Your task to perform on an android device: Search for "razer blackwidow" on amazon.com, select the first entry, add it to the cart, then select checkout. Image 0: 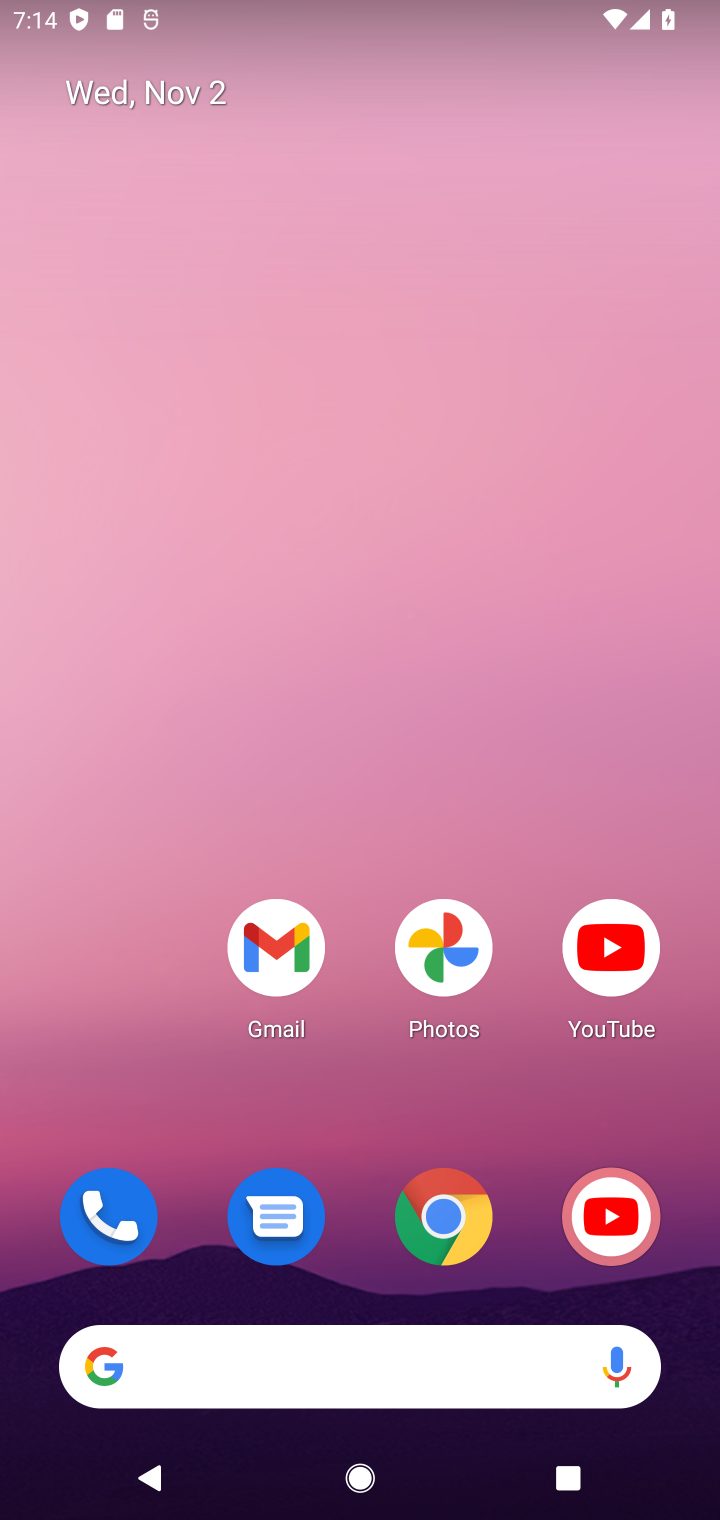
Step 0: click (444, 1235)
Your task to perform on an android device: Search for "razer blackwidow" on amazon.com, select the first entry, add it to the cart, then select checkout. Image 1: 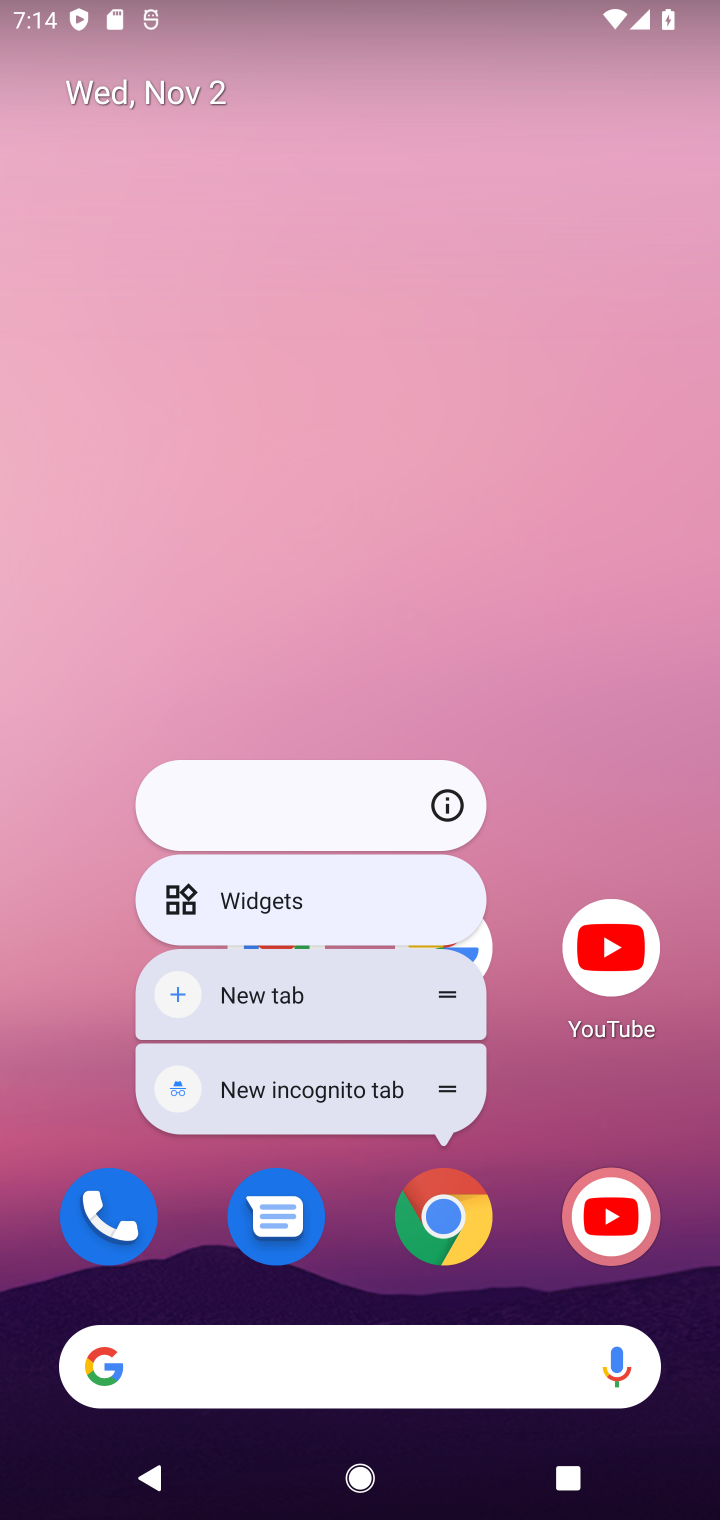
Step 1: click (444, 1235)
Your task to perform on an android device: Search for "razer blackwidow" on amazon.com, select the first entry, add it to the cart, then select checkout. Image 2: 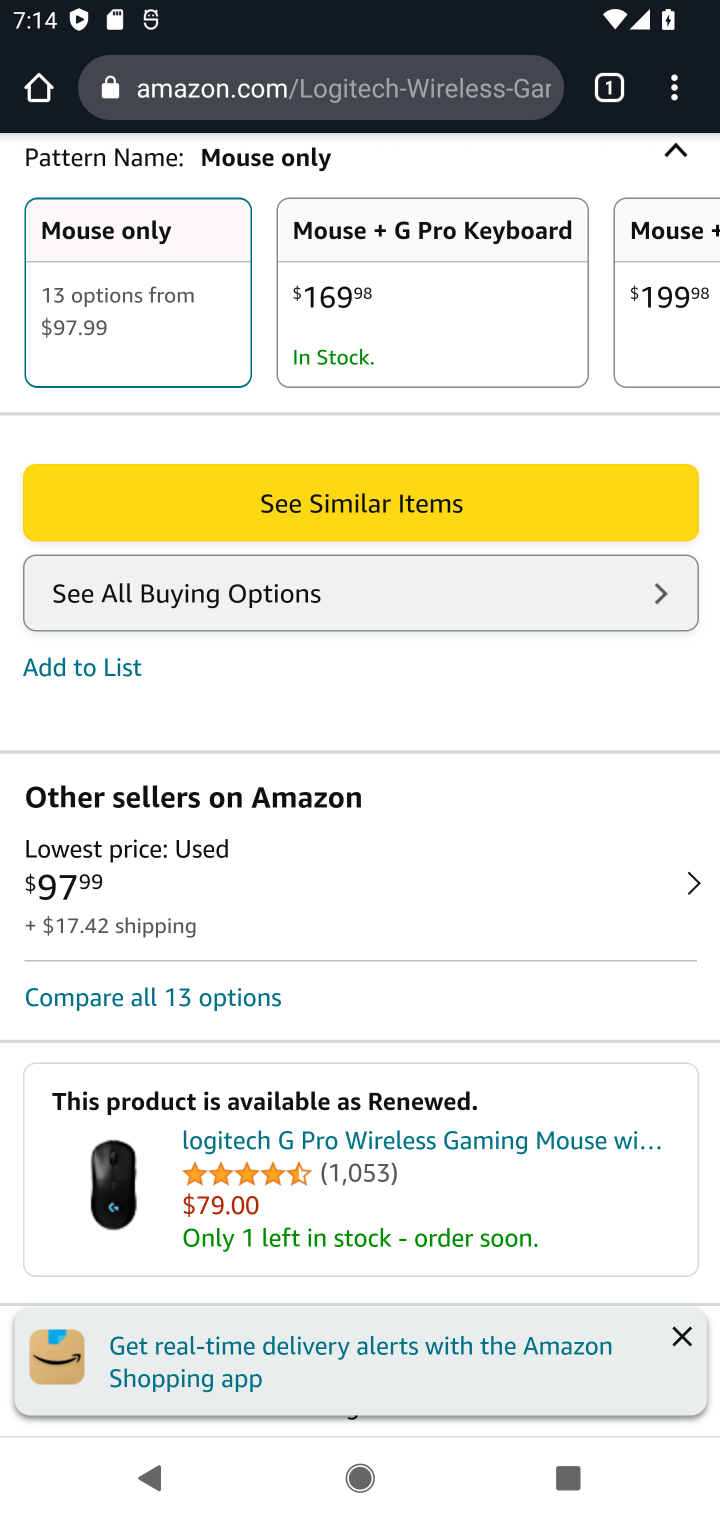
Step 2: click (419, 89)
Your task to perform on an android device: Search for "razer blackwidow" on amazon.com, select the first entry, add it to the cart, then select checkout. Image 3: 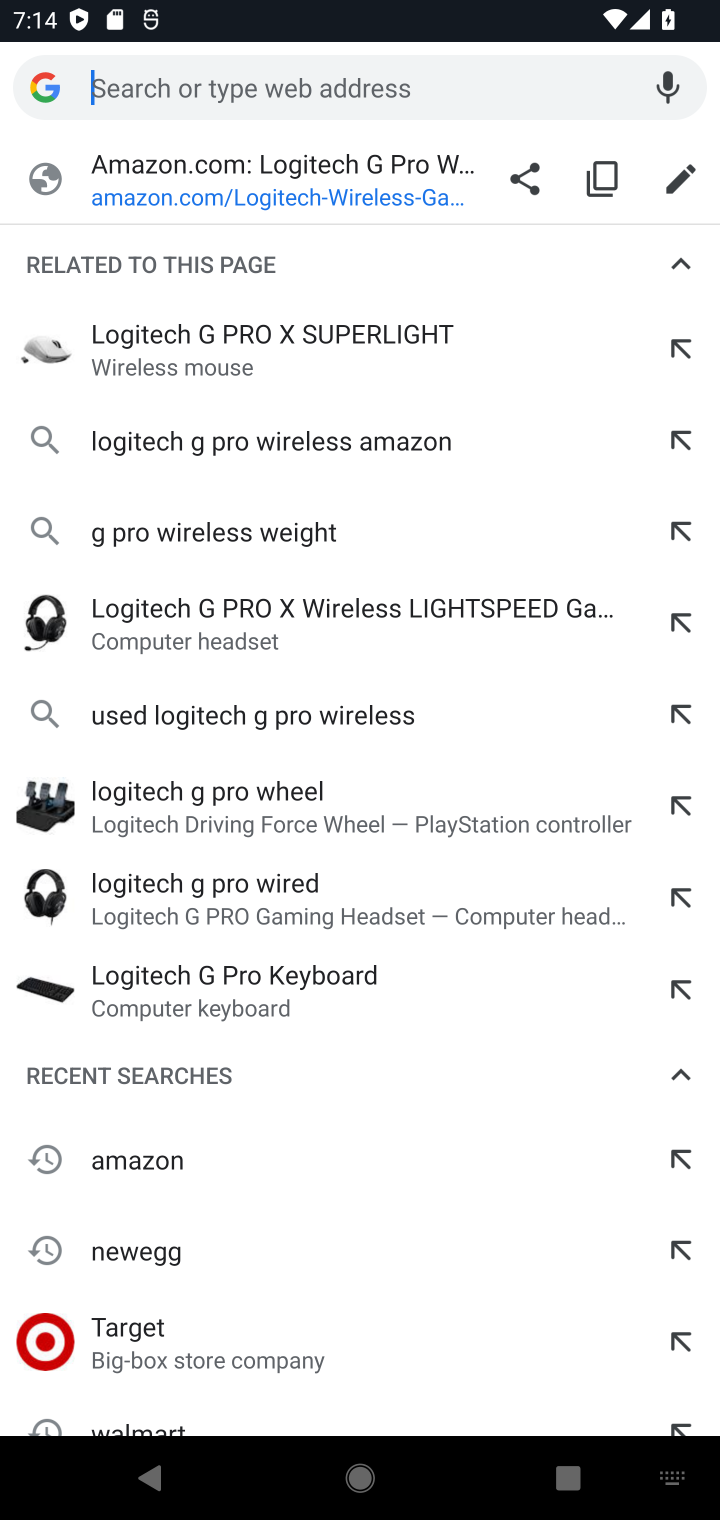
Step 3: type "amazon"
Your task to perform on an android device: Search for "razer blackwidow" on amazon.com, select the first entry, add it to the cart, then select checkout. Image 4: 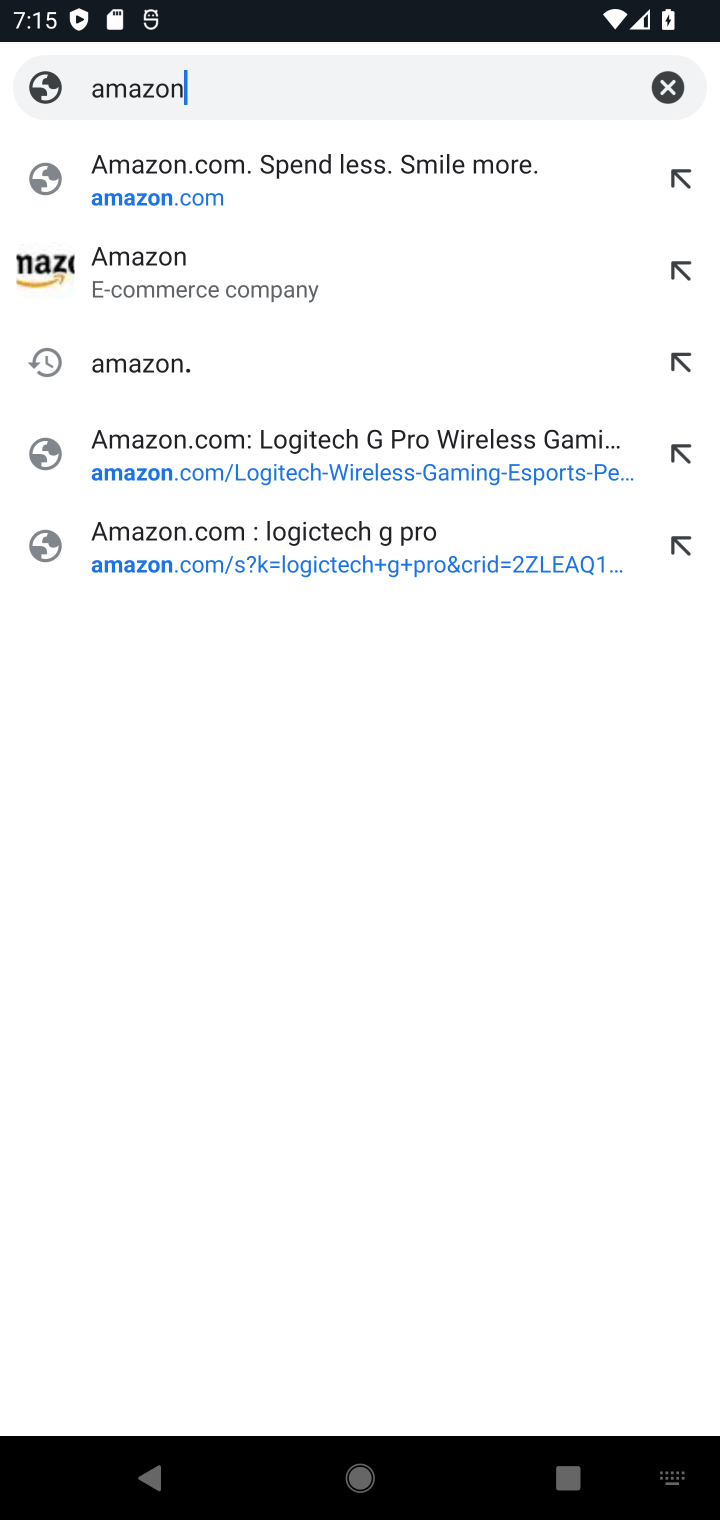
Step 4: click (249, 203)
Your task to perform on an android device: Search for "razer blackwidow" on amazon.com, select the first entry, add it to the cart, then select checkout. Image 5: 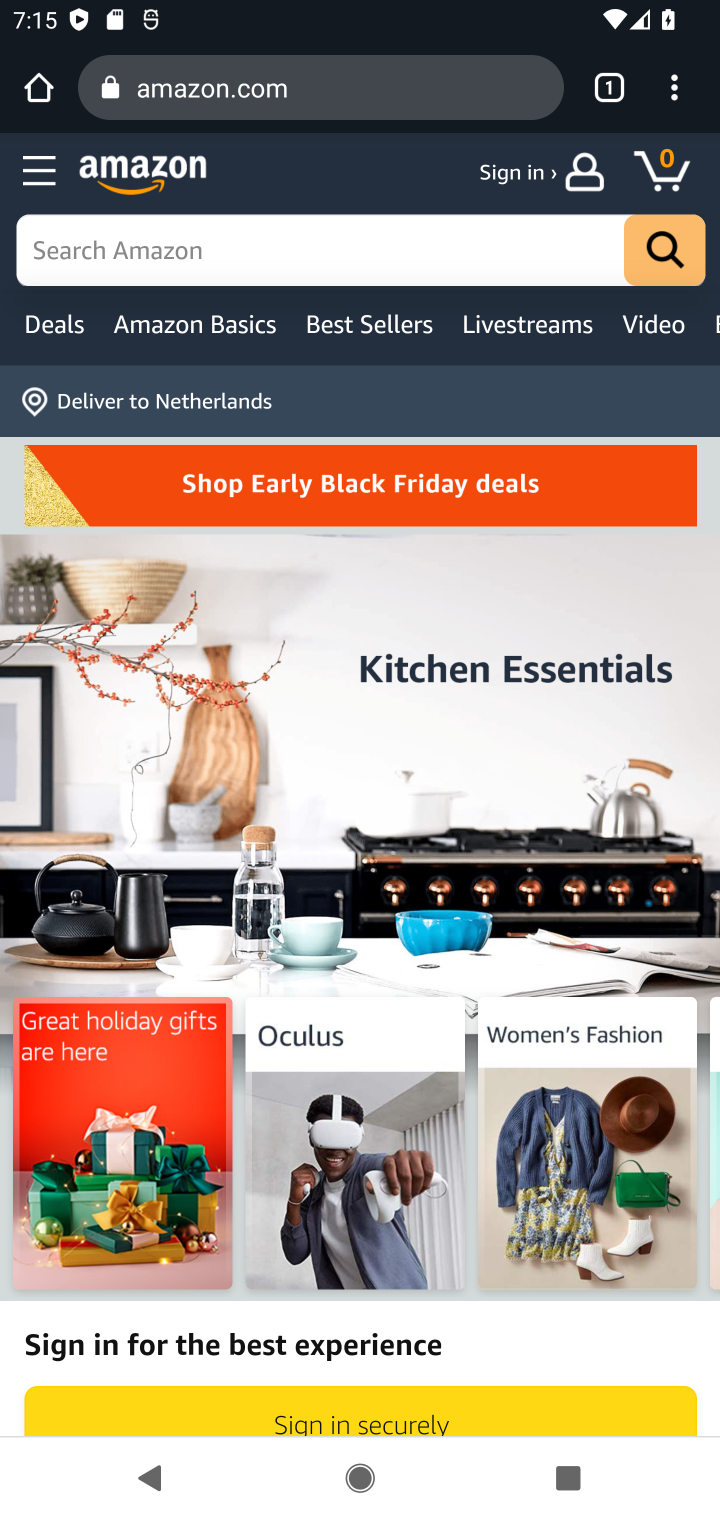
Step 5: click (355, 247)
Your task to perform on an android device: Search for "razer blackwidow" on amazon.com, select the first entry, add it to the cart, then select checkout. Image 6: 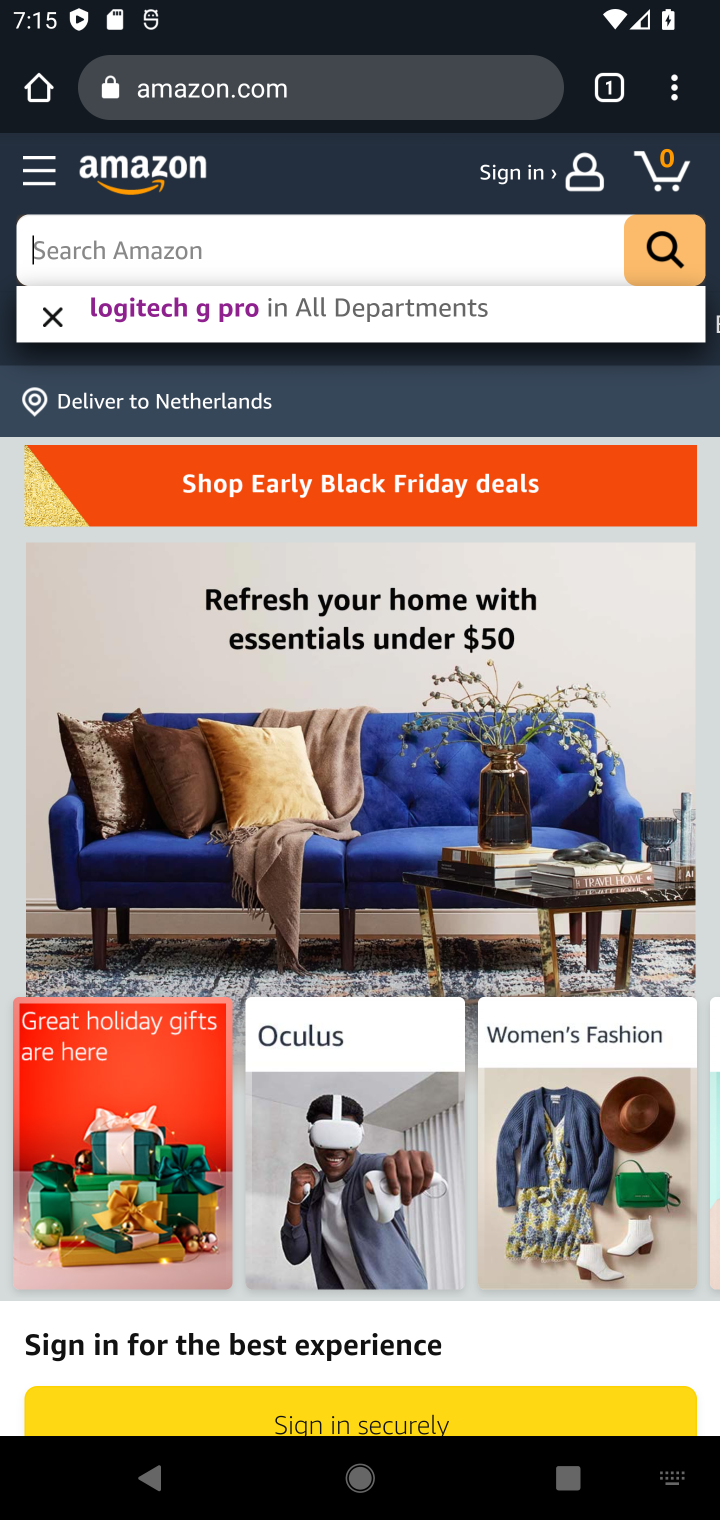
Step 6: click (389, 254)
Your task to perform on an android device: Search for "razer blackwidow" on amazon.com, select the first entry, add it to the cart, then select checkout. Image 7: 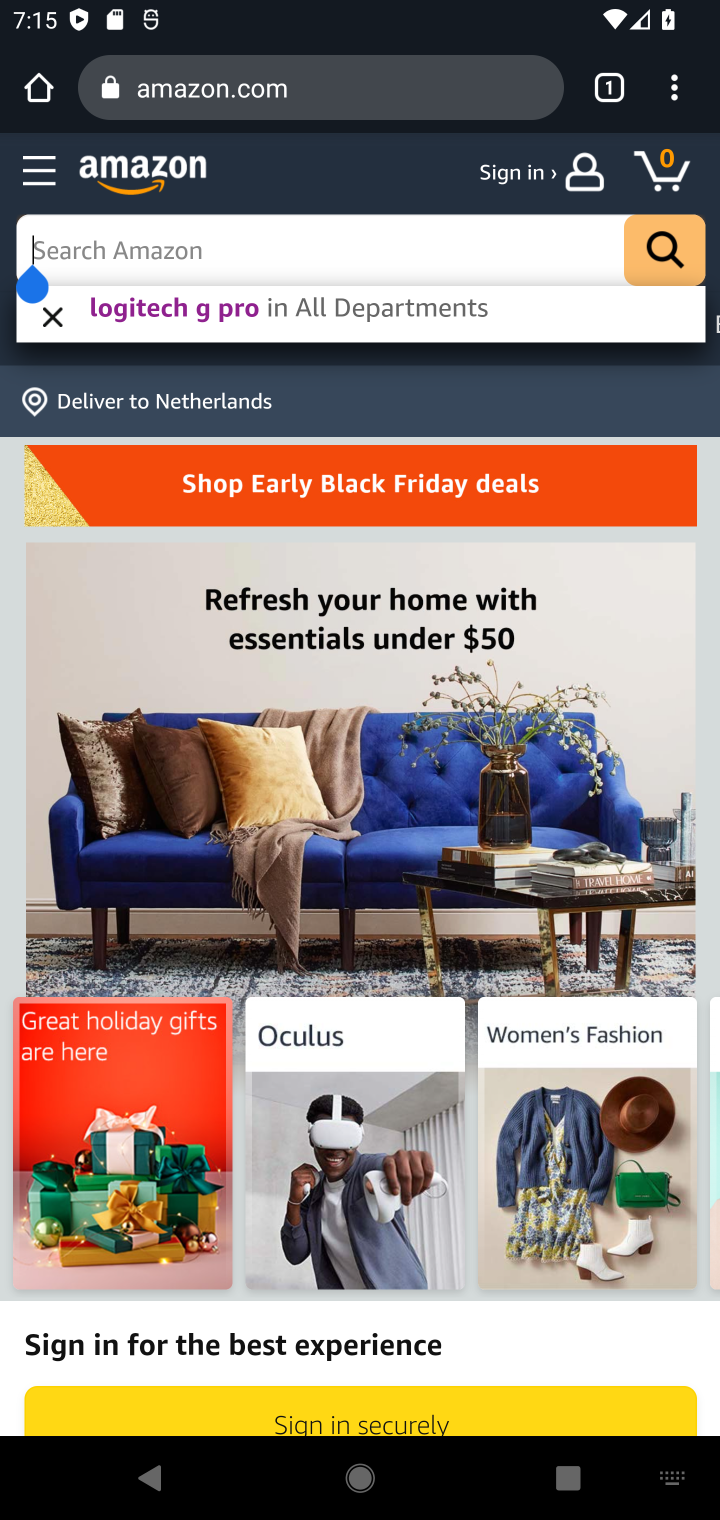
Step 7: type "razer blackwidow"
Your task to perform on an android device: Search for "razer blackwidow" on amazon.com, select the first entry, add it to the cart, then select checkout. Image 8: 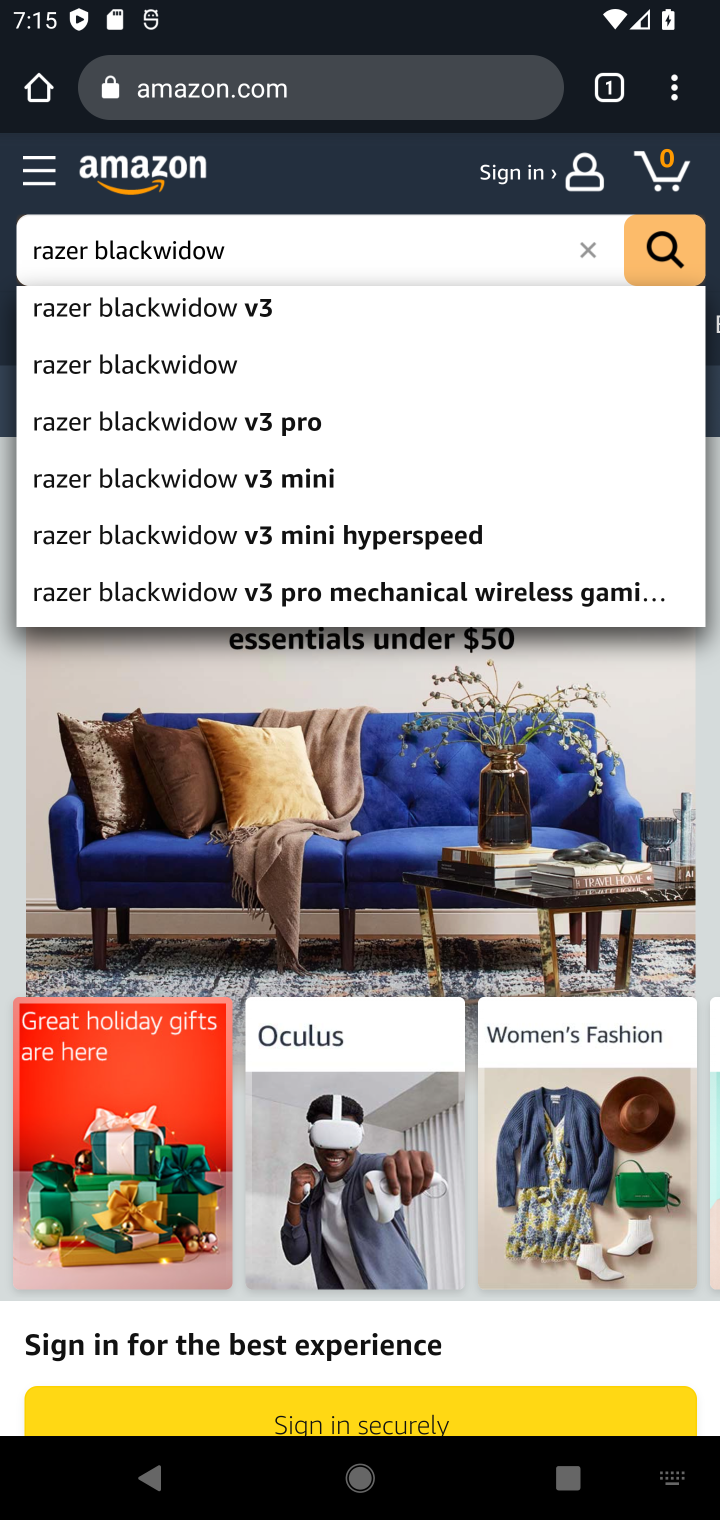
Step 8: press enter
Your task to perform on an android device: Search for "razer blackwidow" on amazon.com, select the first entry, add it to the cart, then select checkout. Image 9: 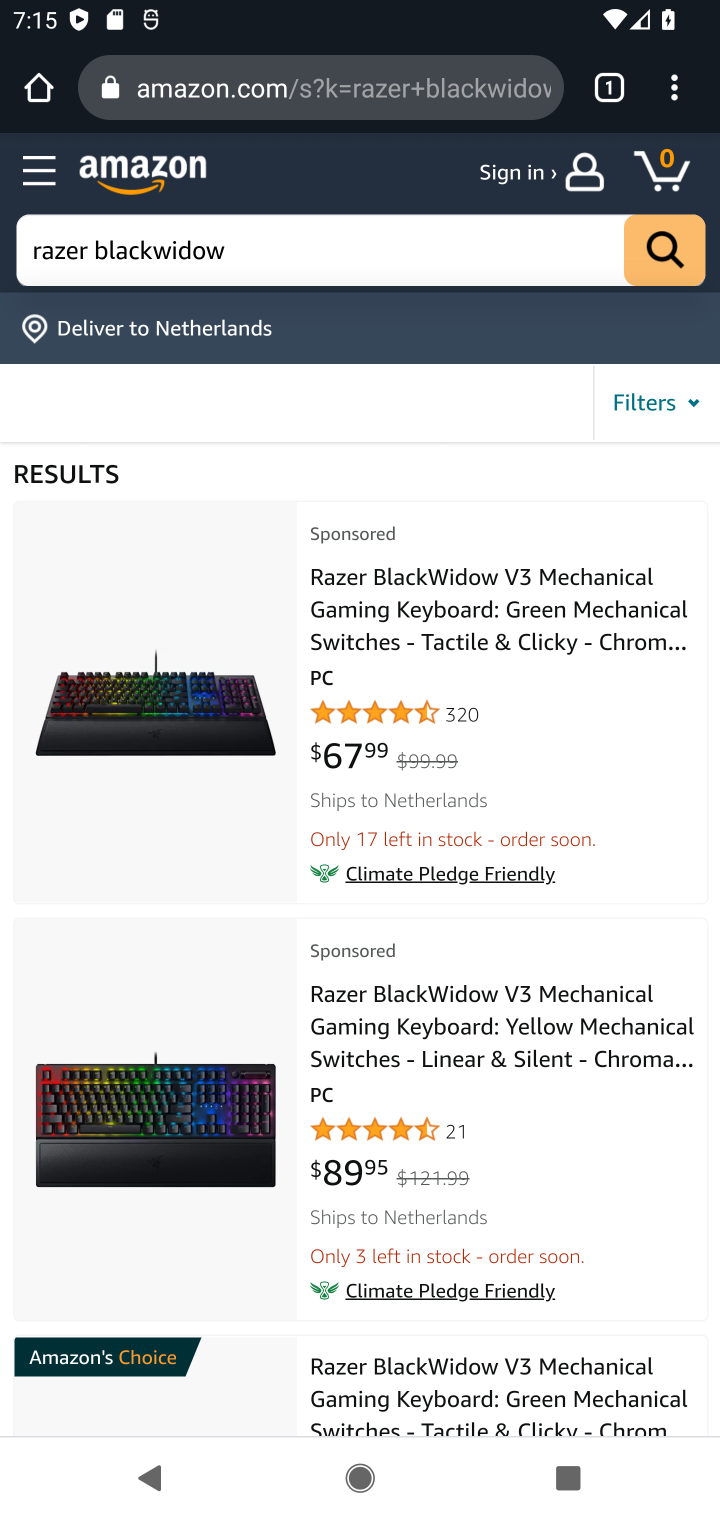
Step 9: click (200, 733)
Your task to perform on an android device: Search for "razer blackwidow" on amazon.com, select the first entry, add it to the cart, then select checkout. Image 10: 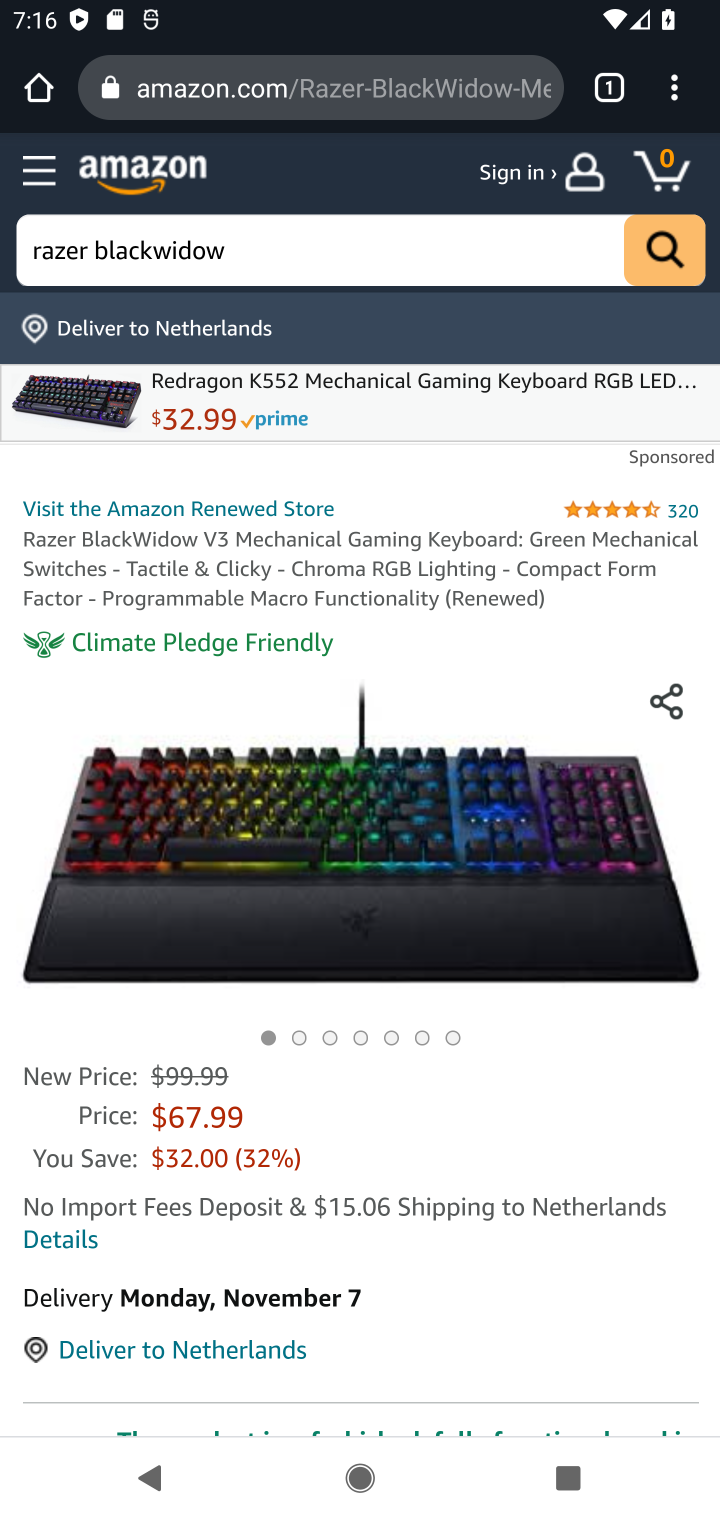
Step 10: drag from (518, 935) to (525, 474)
Your task to perform on an android device: Search for "razer blackwidow" on amazon.com, select the first entry, add it to the cart, then select checkout. Image 11: 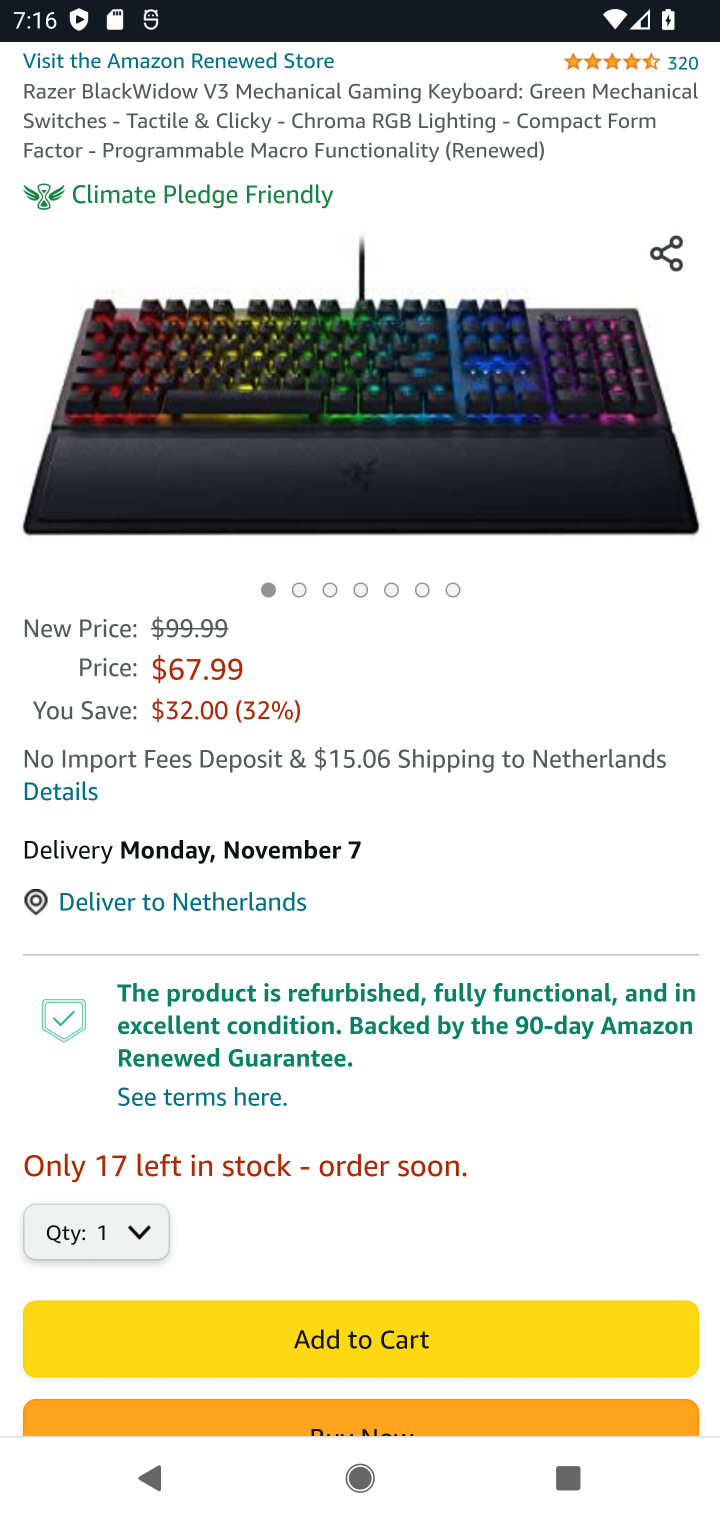
Step 11: drag from (453, 948) to (375, 300)
Your task to perform on an android device: Search for "razer blackwidow" on amazon.com, select the first entry, add it to the cart, then select checkout. Image 12: 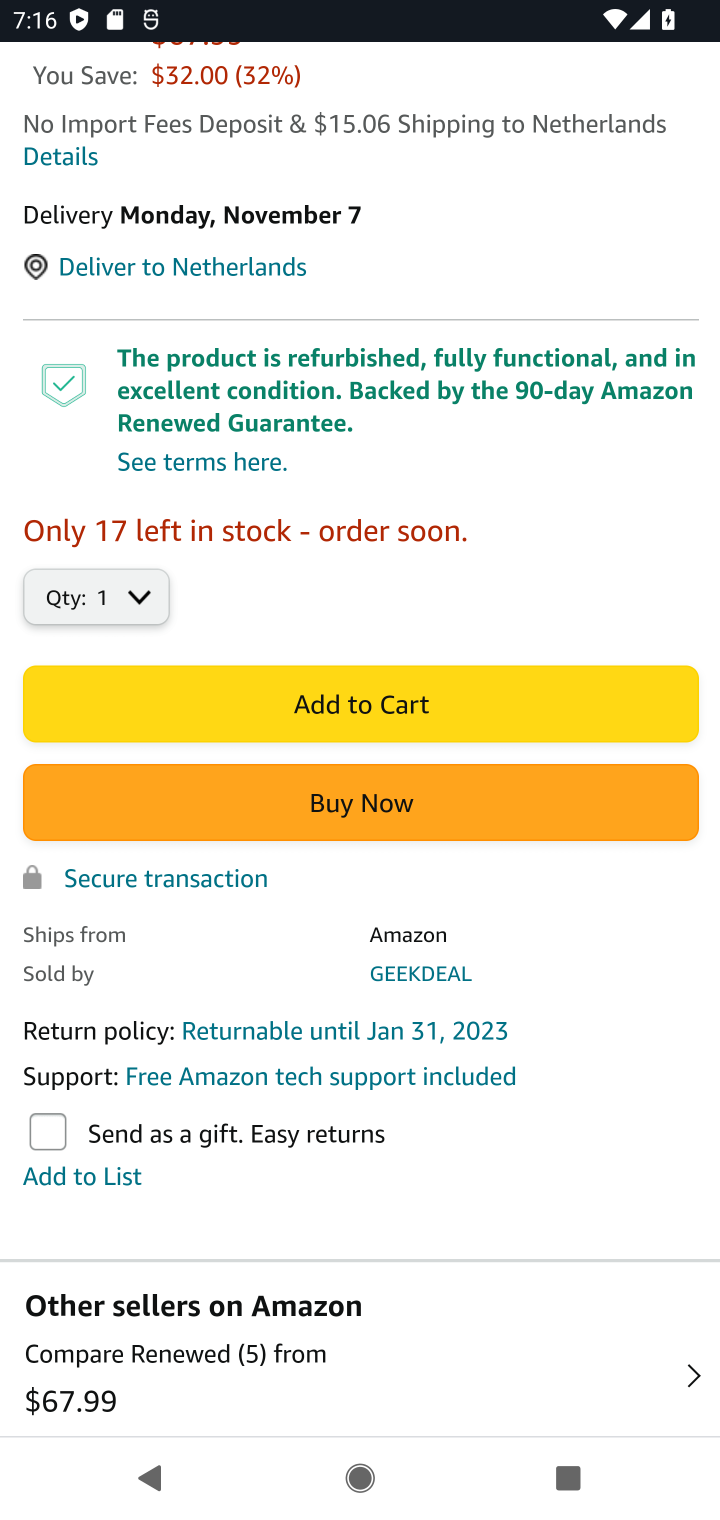
Step 12: click (424, 693)
Your task to perform on an android device: Search for "razer blackwidow" on amazon.com, select the first entry, add it to the cart, then select checkout. Image 13: 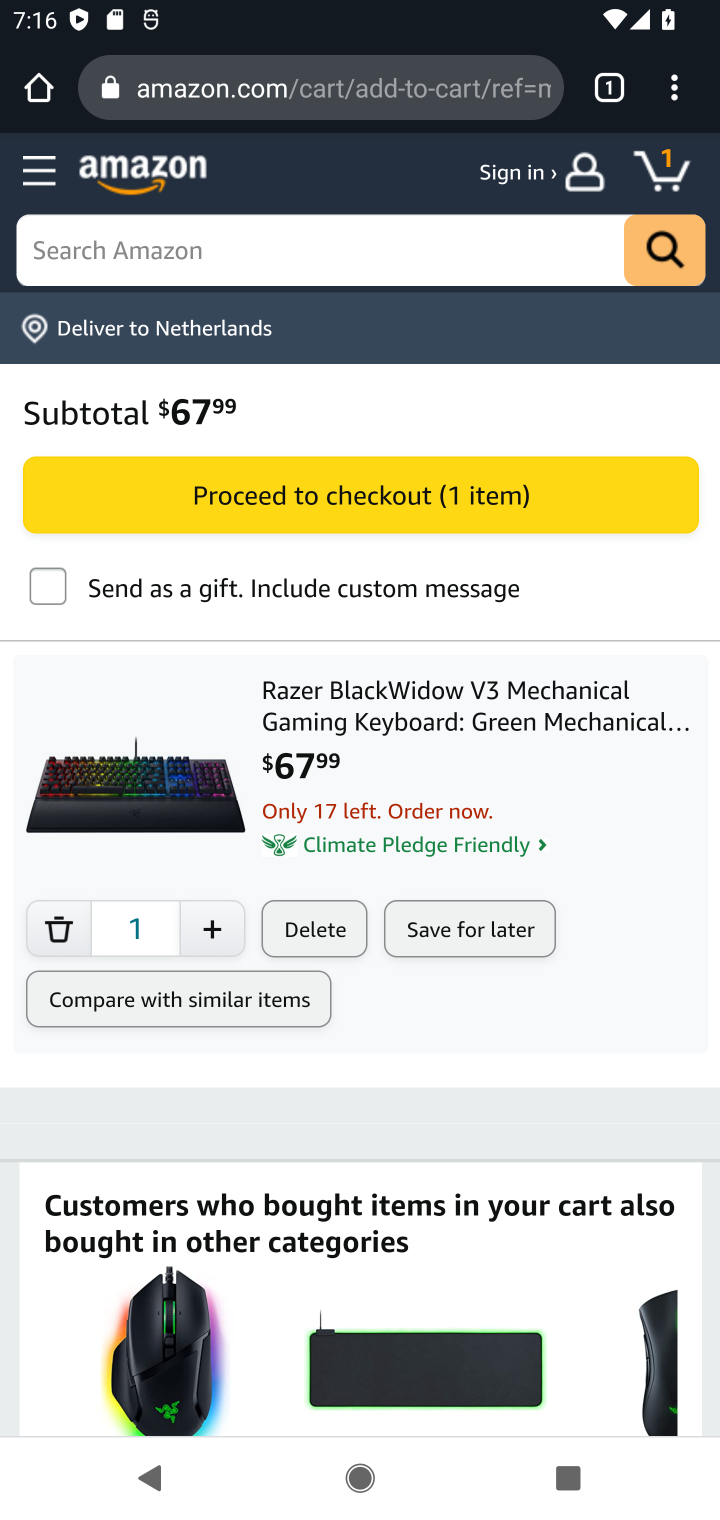
Step 13: drag from (506, 413) to (551, 1112)
Your task to perform on an android device: Search for "razer blackwidow" on amazon.com, select the first entry, add it to the cart, then select checkout. Image 14: 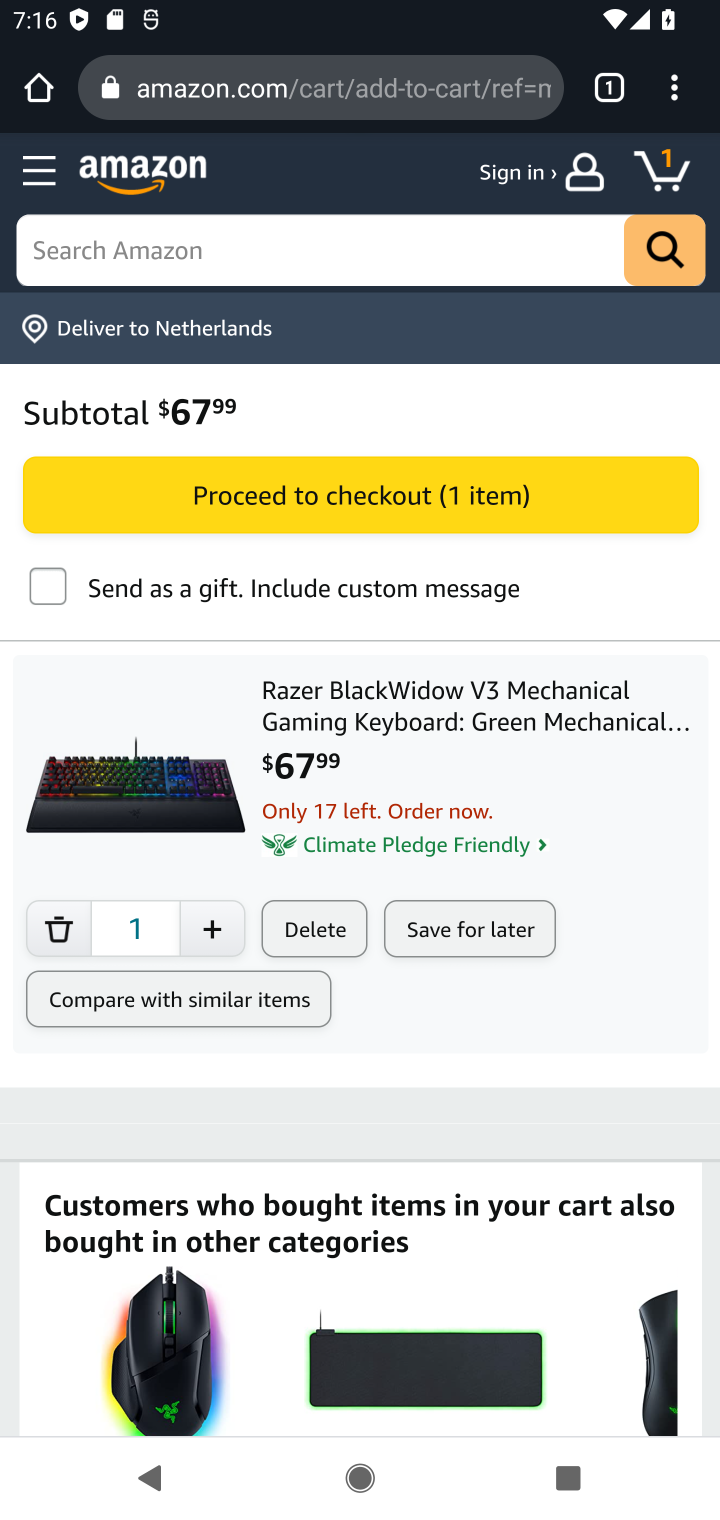
Step 14: click (654, 158)
Your task to perform on an android device: Search for "razer blackwidow" on amazon.com, select the first entry, add it to the cart, then select checkout. Image 15: 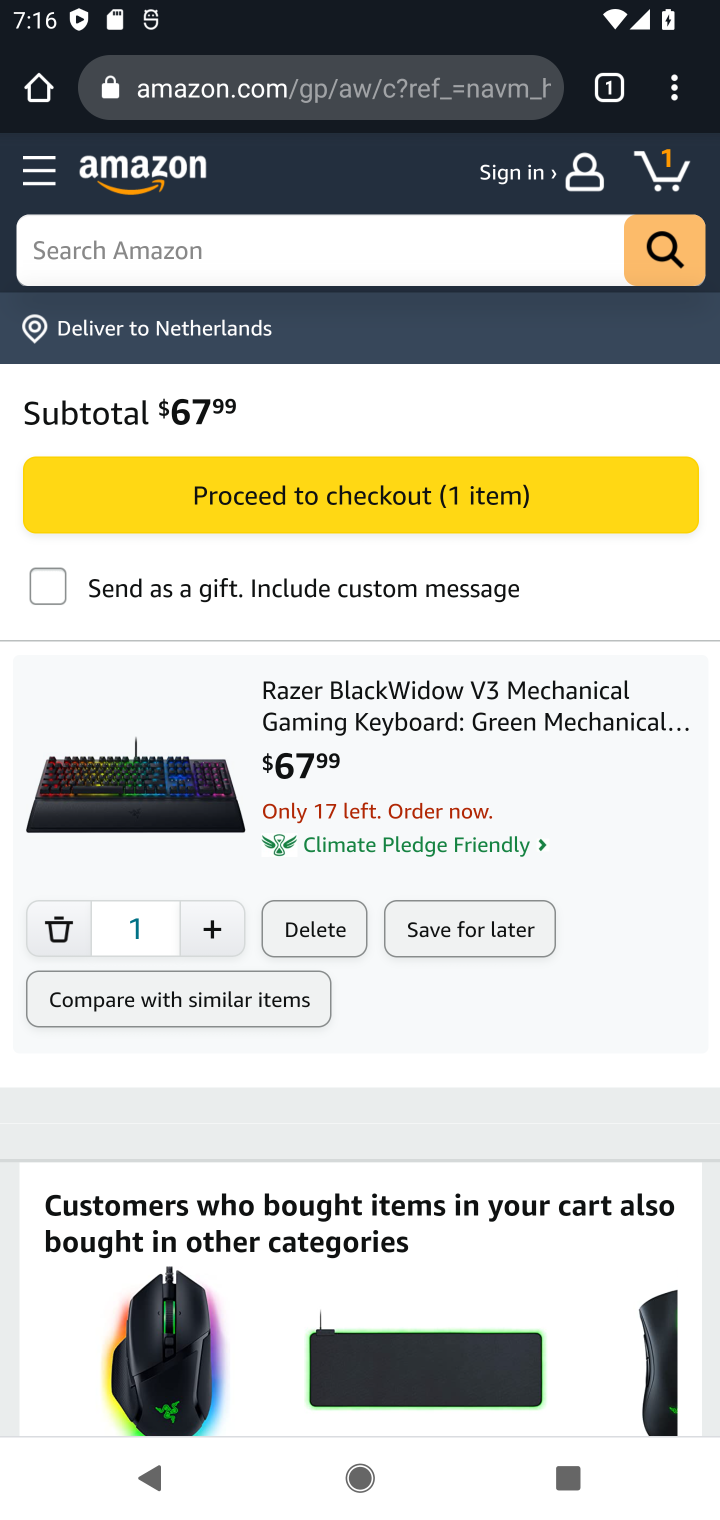
Step 15: click (380, 509)
Your task to perform on an android device: Search for "razer blackwidow" on amazon.com, select the first entry, add it to the cart, then select checkout. Image 16: 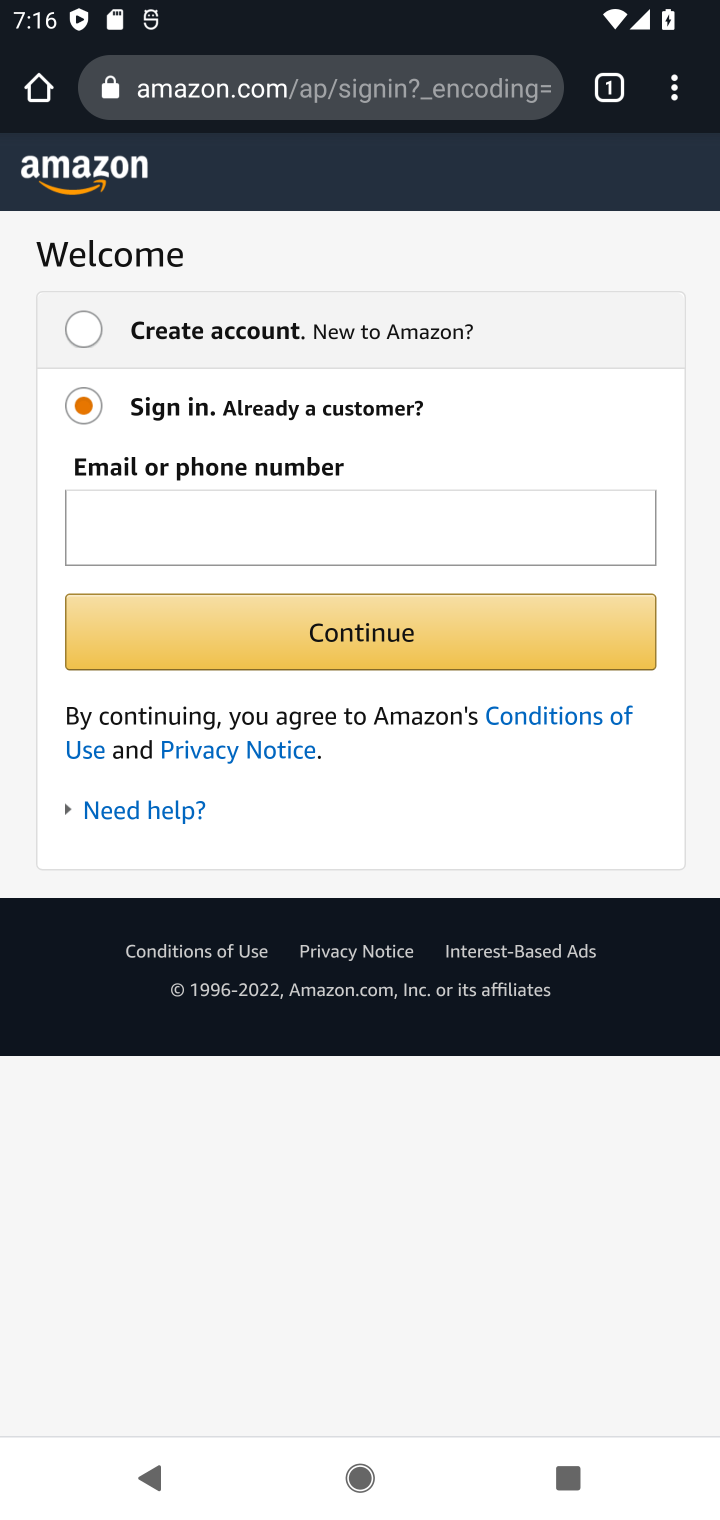
Step 16: task complete